Your task to perform on an android device: Open the stopwatch Image 0: 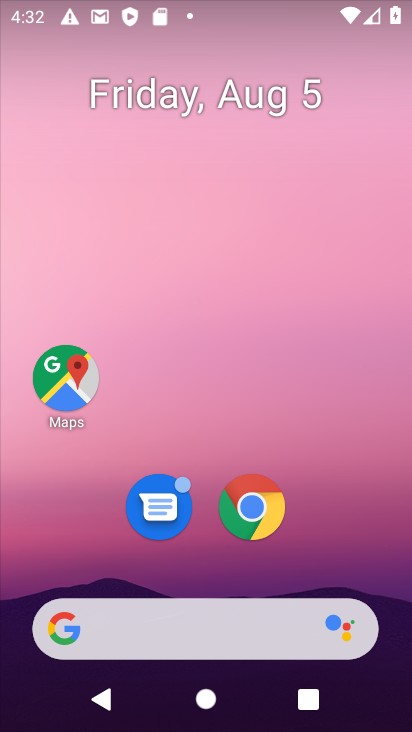
Step 0: drag from (213, 544) to (250, 79)
Your task to perform on an android device: Open the stopwatch Image 1: 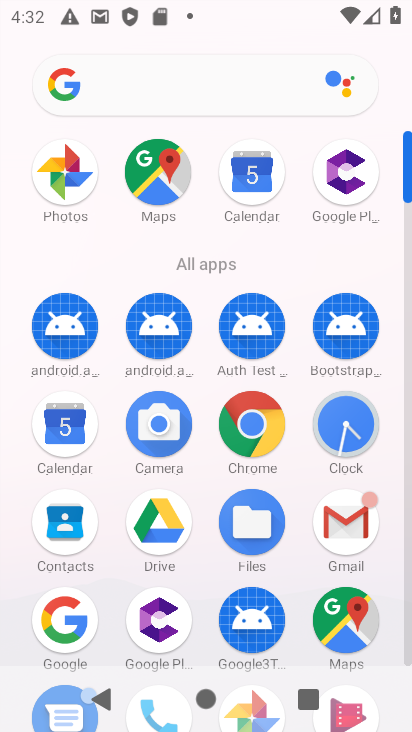
Step 1: click (360, 427)
Your task to perform on an android device: Open the stopwatch Image 2: 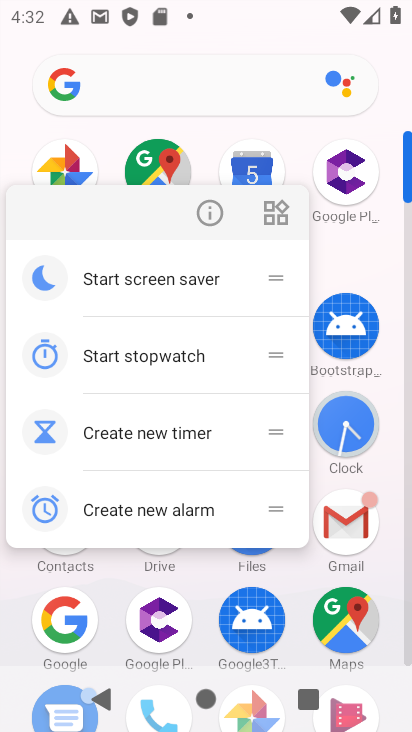
Step 2: click (351, 427)
Your task to perform on an android device: Open the stopwatch Image 3: 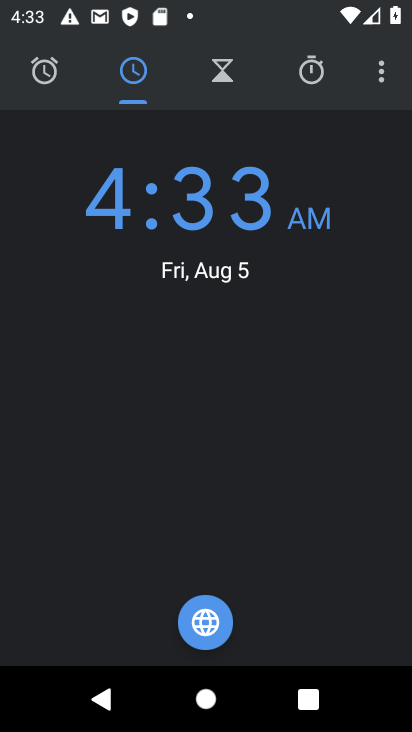
Step 3: drag from (309, 78) to (372, 78)
Your task to perform on an android device: Open the stopwatch Image 4: 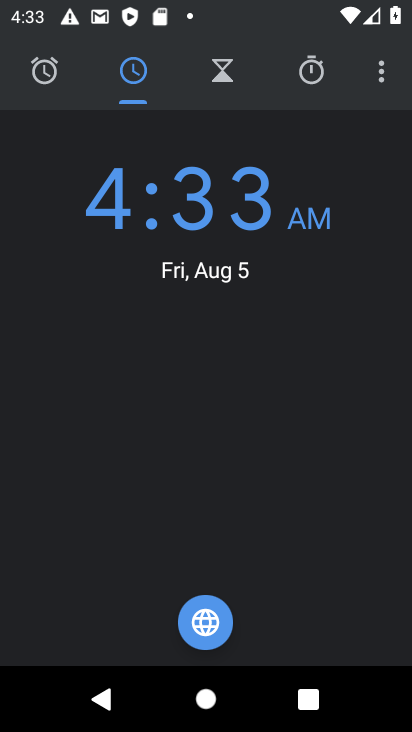
Step 4: click (296, 71)
Your task to perform on an android device: Open the stopwatch Image 5: 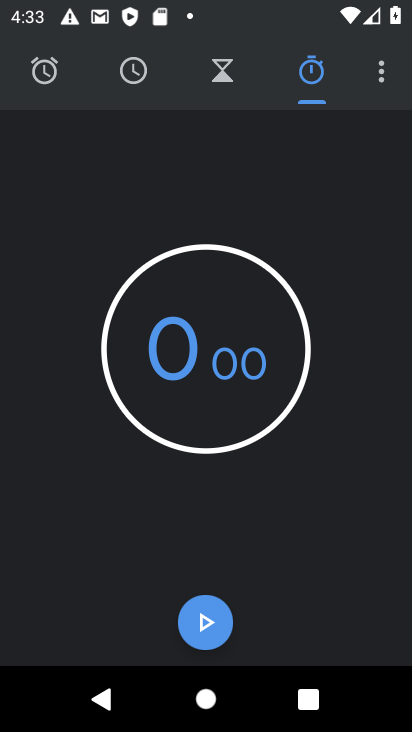
Step 5: task complete